Your task to perform on an android device: Go to Yahoo.com Image 0: 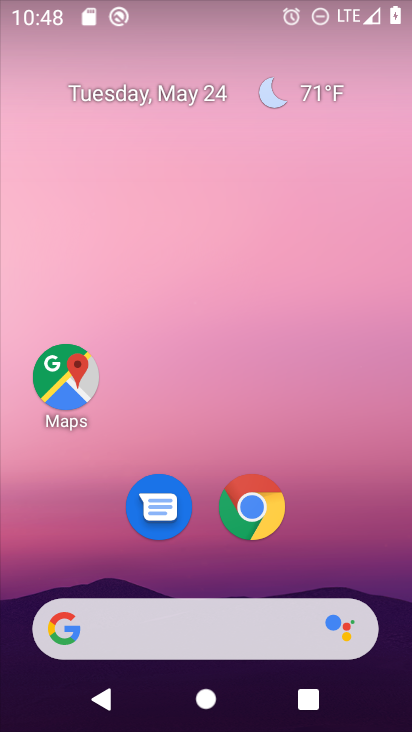
Step 0: click (250, 503)
Your task to perform on an android device: Go to Yahoo.com Image 1: 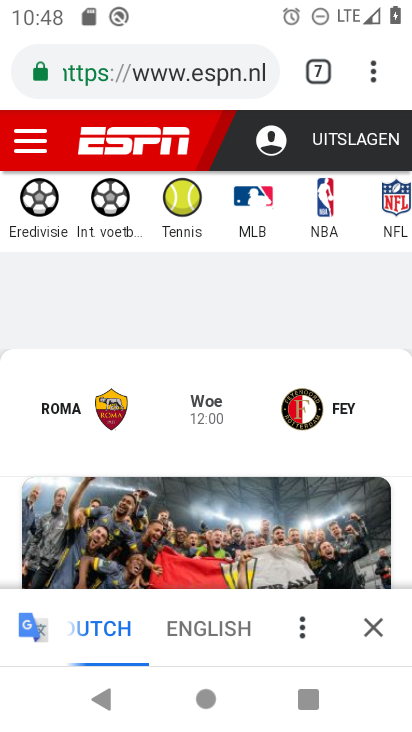
Step 1: click (374, 78)
Your task to perform on an android device: Go to Yahoo.com Image 2: 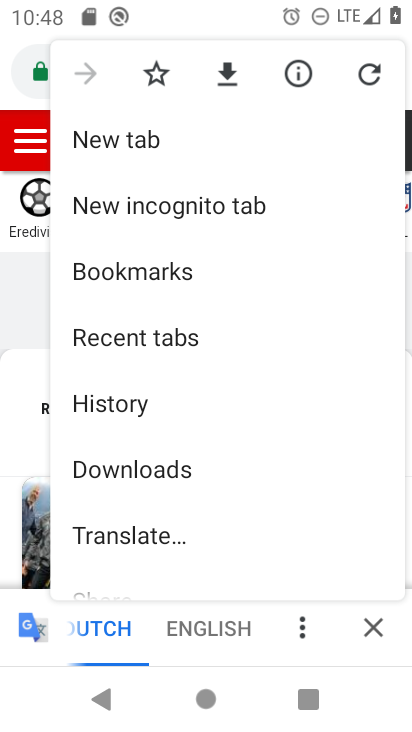
Step 2: click (120, 141)
Your task to perform on an android device: Go to Yahoo.com Image 3: 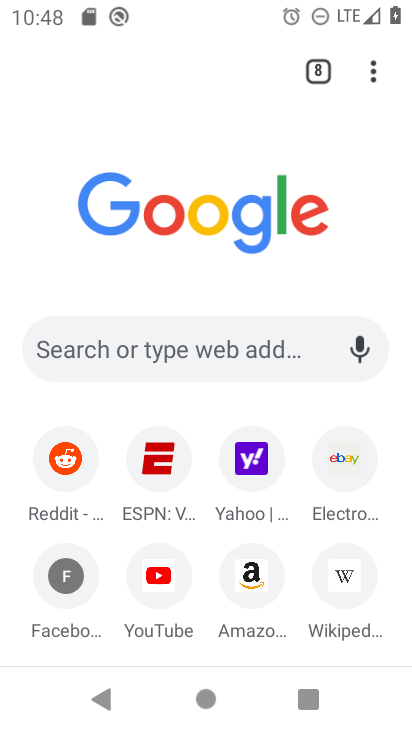
Step 3: click (253, 474)
Your task to perform on an android device: Go to Yahoo.com Image 4: 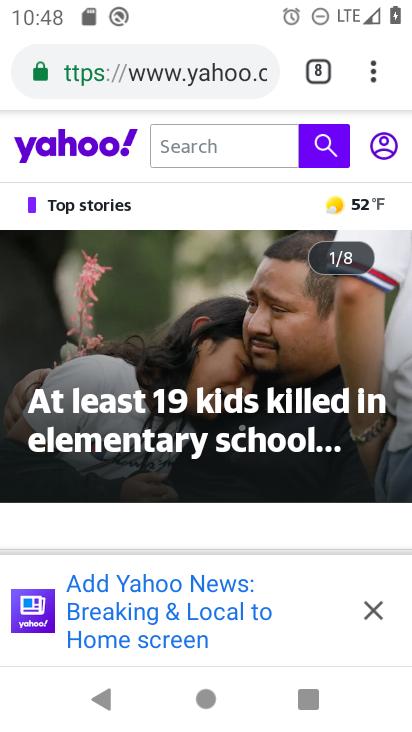
Step 4: task complete